Your task to perform on an android device: Check the news Image 0: 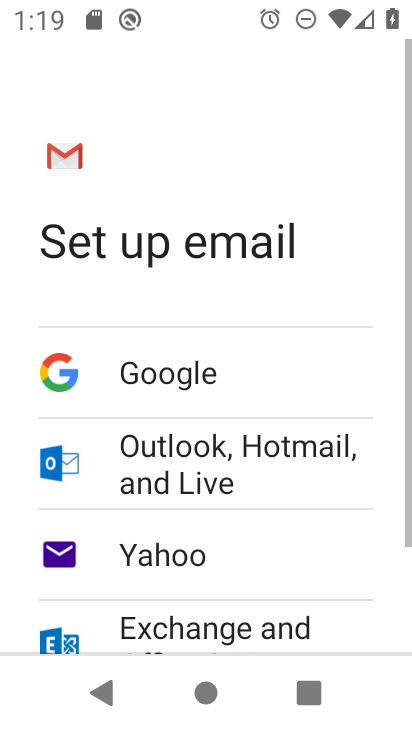
Step 0: press home button
Your task to perform on an android device: Check the news Image 1: 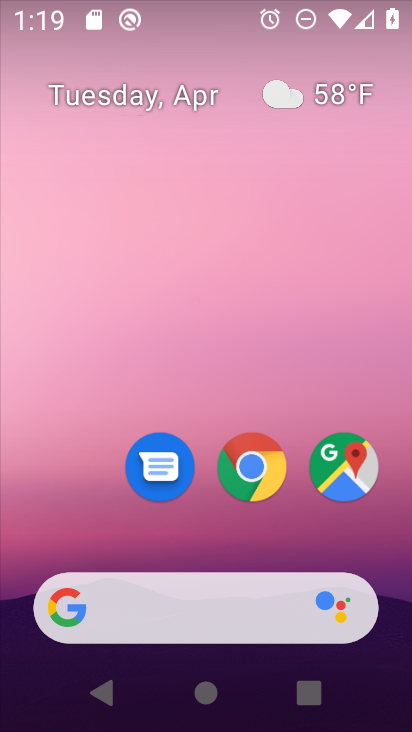
Step 1: click (204, 605)
Your task to perform on an android device: Check the news Image 2: 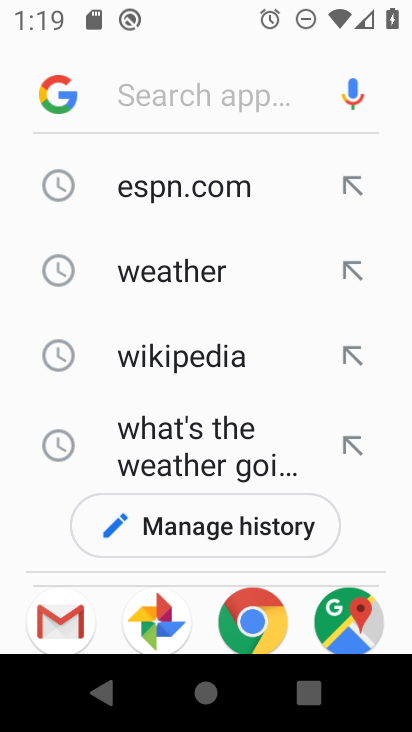
Step 2: click (71, 92)
Your task to perform on an android device: Check the news Image 3: 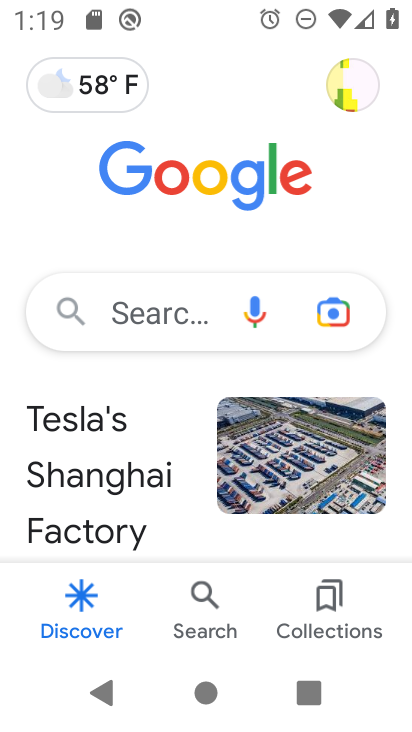
Step 3: task complete